Your task to perform on an android device: turn on javascript in the chrome app Image 0: 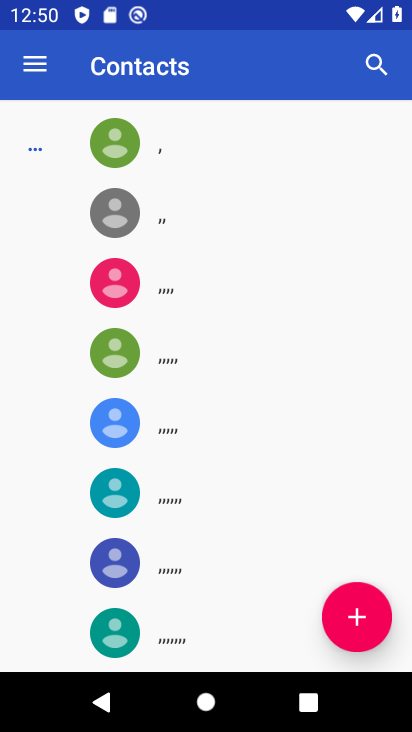
Step 0: press home button
Your task to perform on an android device: turn on javascript in the chrome app Image 1: 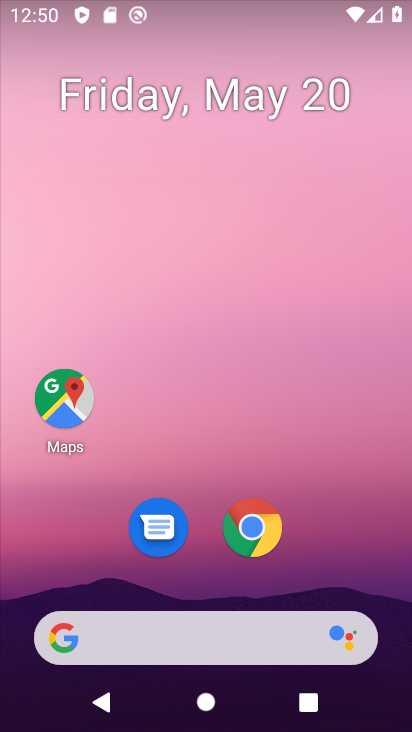
Step 1: click (259, 528)
Your task to perform on an android device: turn on javascript in the chrome app Image 2: 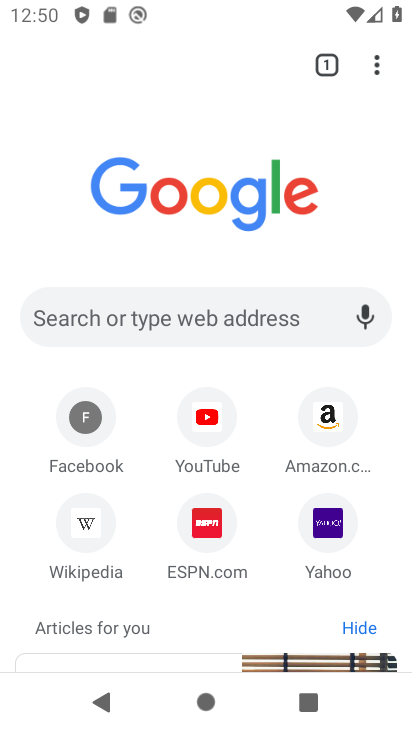
Step 2: click (376, 70)
Your task to perform on an android device: turn on javascript in the chrome app Image 3: 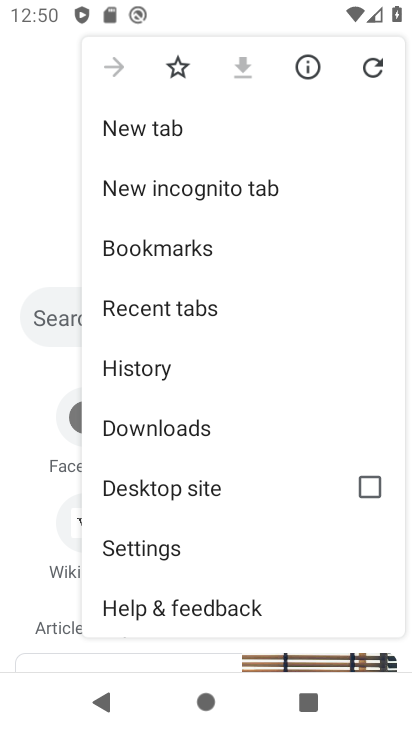
Step 3: click (196, 545)
Your task to perform on an android device: turn on javascript in the chrome app Image 4: 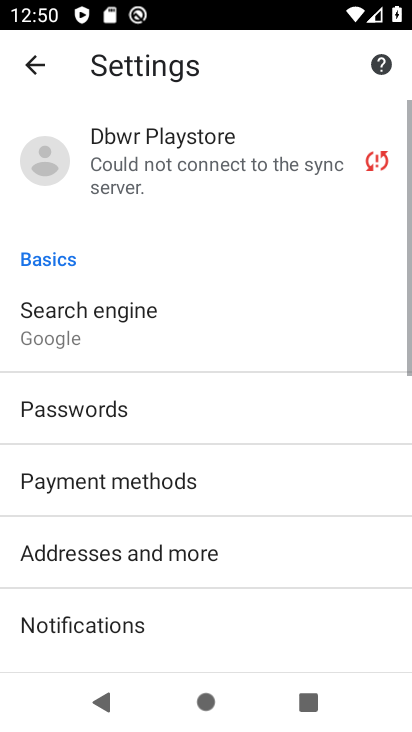
Step 4: drag from (265, 485) to (290, 154)
Your task to perform on an android device: turn on javascript in the chrome app Image 5: 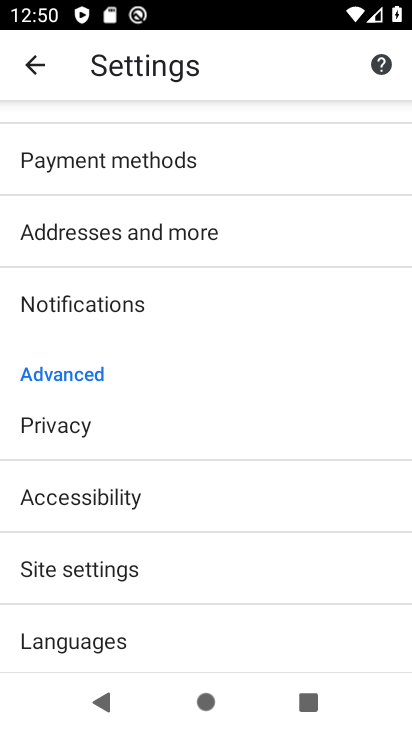
Step 5: click (165, 572)
Your task to perform on an android device: turn on javascript in the chrome app Image 6: 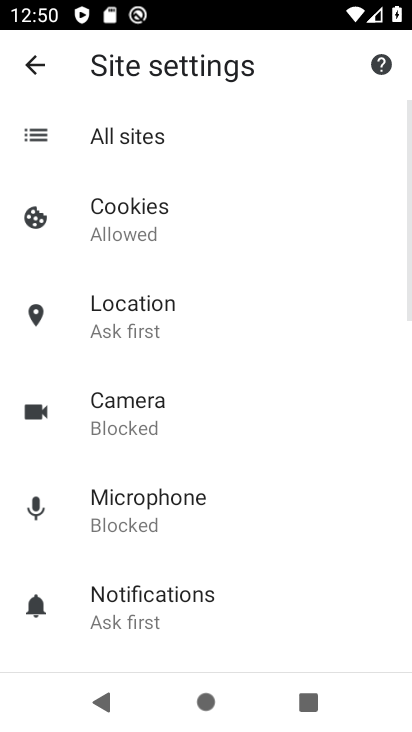
Step 6: drag from (251, 459) to (275, 160)
Your task to perform on an android device: turn on javascript in the chrome app Image 7: 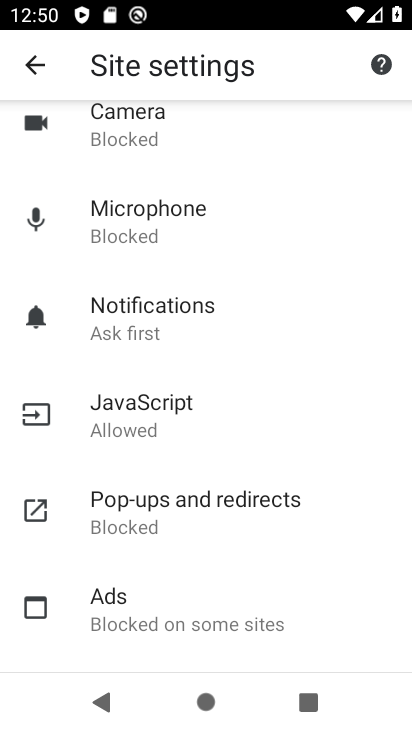
Step 7: click (204, 409)
Your task to perform on an android device: turn on javascript in the chrome app Image 8: 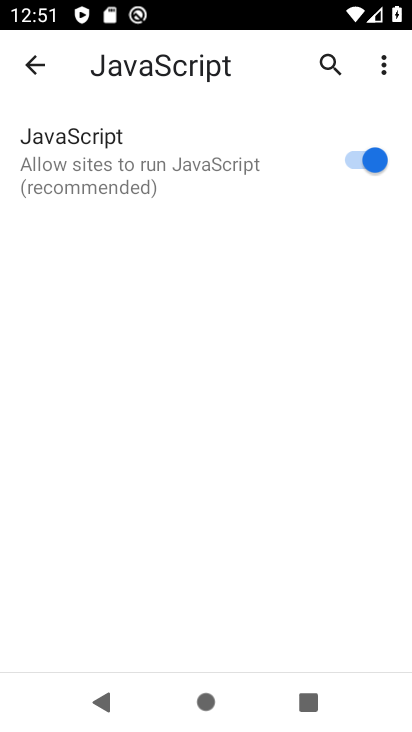
Step 8: task complete